Your task to perform on an android device: Open Google Chrome and click the shortcut for Amazon.com Image 0: 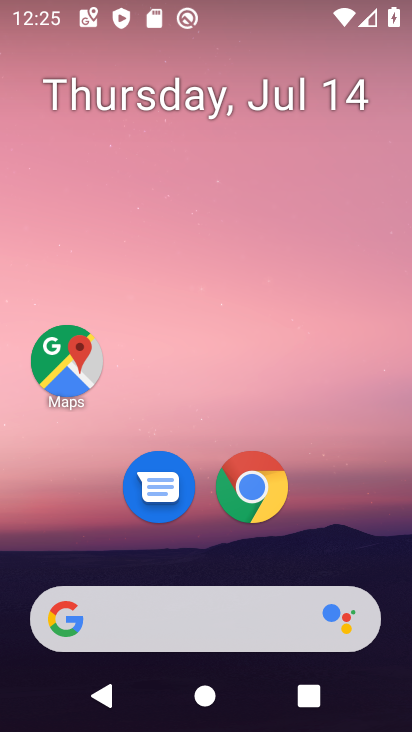
Step 0: drag from (173, 641) to (150, 135)
Your task to perform on an android device: Open Google Chrome and click the shortcut for Amazon.com Image 1: 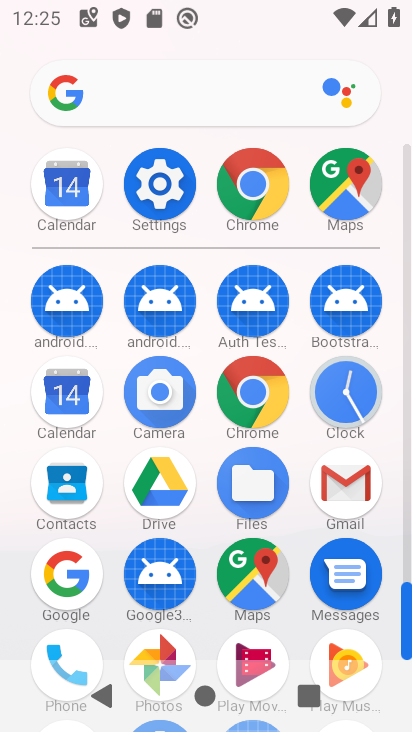
Step 1: click (258, 210)
Your task to perform on an android device: Open Google Chrome and click the shortcut for Amazon.com Image 2: 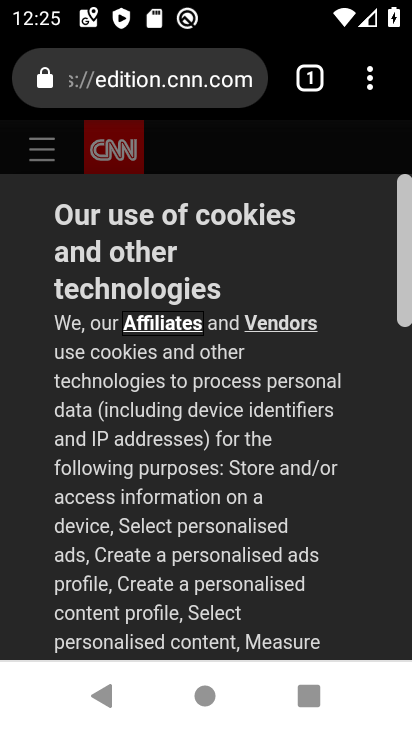
Step 2: click (190, 107)
Your task to perform on an android device: Open Google Chrome and click the shortcut for Amazon.com Image 3: 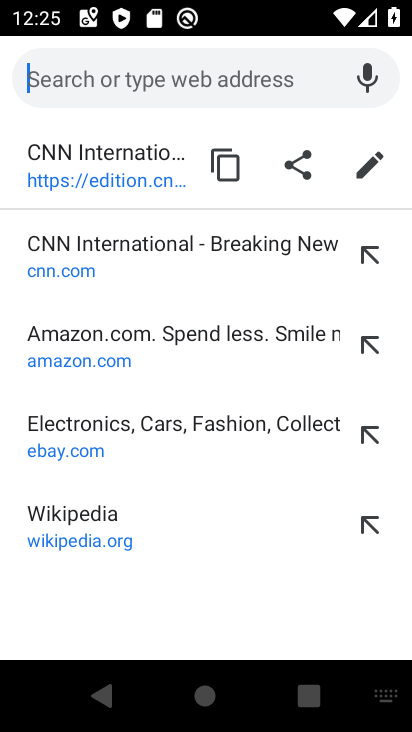
Step 3: click (188, 359)
Your task to perform on an android device: Open Google Chrome and click the shortcut for Amazon.com Image 4: 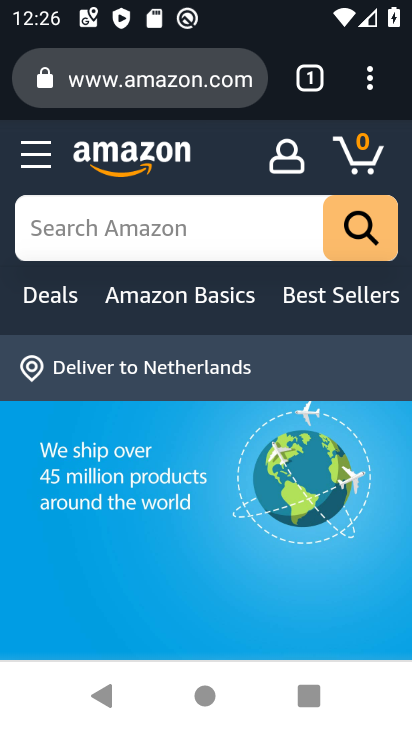
Step 4: task complete